Your task to perform on an android device: open app "Viber Messenger" Image 0: 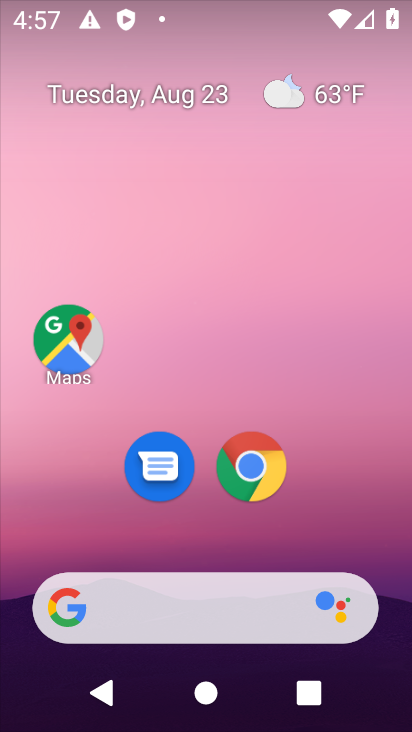
Step 0: drag from (159, 630) to (128, 51)
Your task to perform on an android device: open app "Viber Messenger" Image 1: 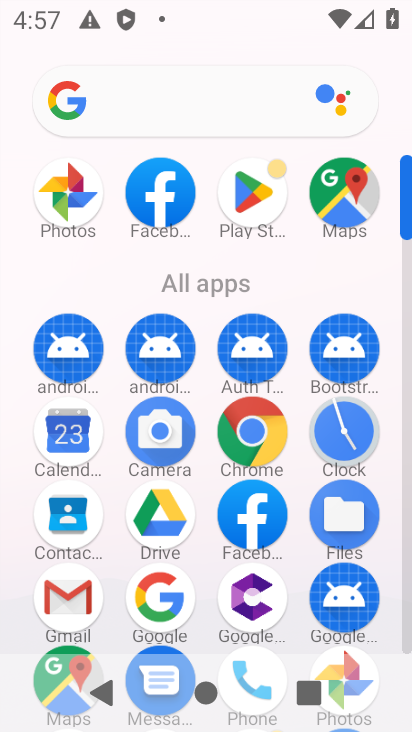
Step 1: click (242, 204)
Your task to perform on an android device: open app "Viber Messenger" Image 2: 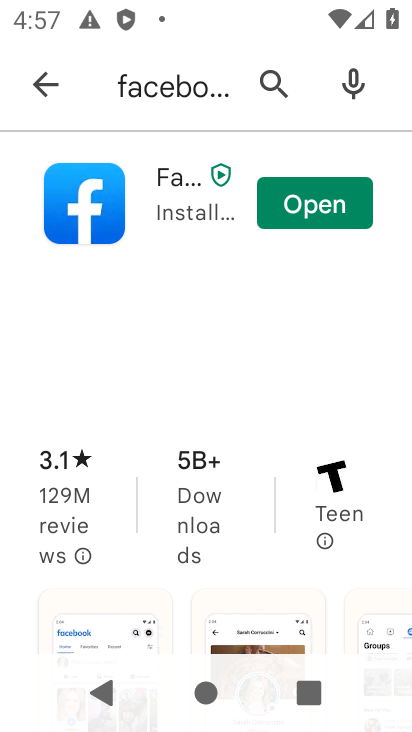
Step 2: click (265, 86)
Your task to perform on an android device: open app "Viber Messenger" Image 3: 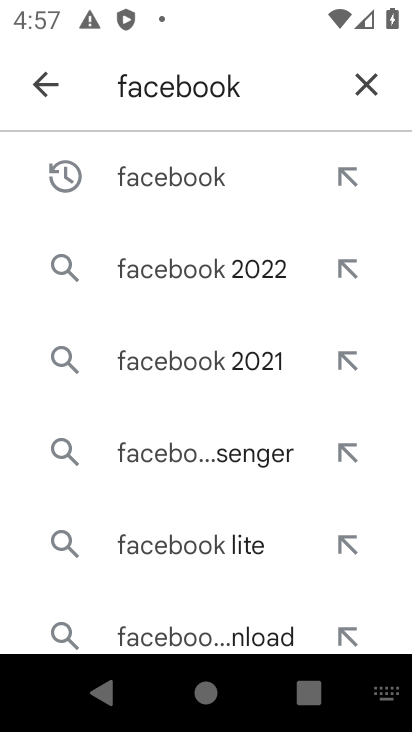
Step 3: click (362, 85)
Your task to perform on an android device: open app "Viber Messenger" Image 4: 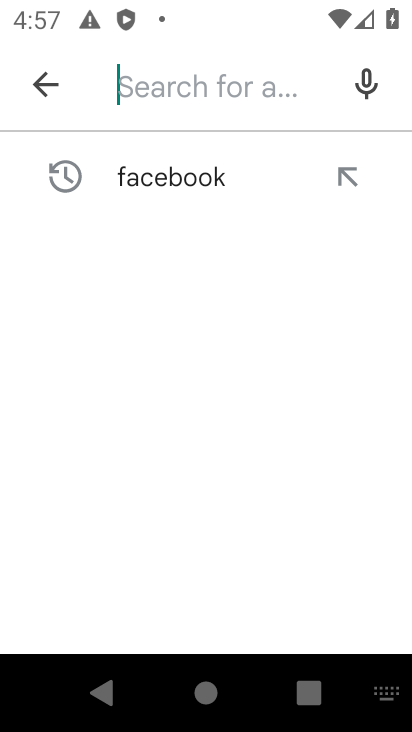
Step 4: type "viber messenger"
Your task to perform on an android device: open app "Viber Messenger" Image 5: 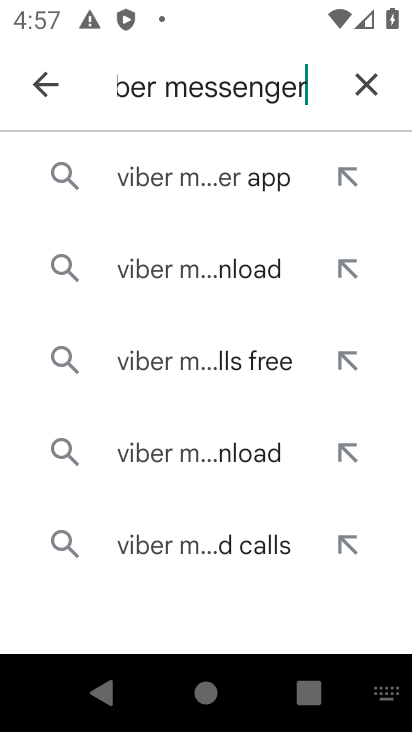
Step 5: click (220, 184)
Your task to perform on an android device: open app "Viber Messenger" Image 6: 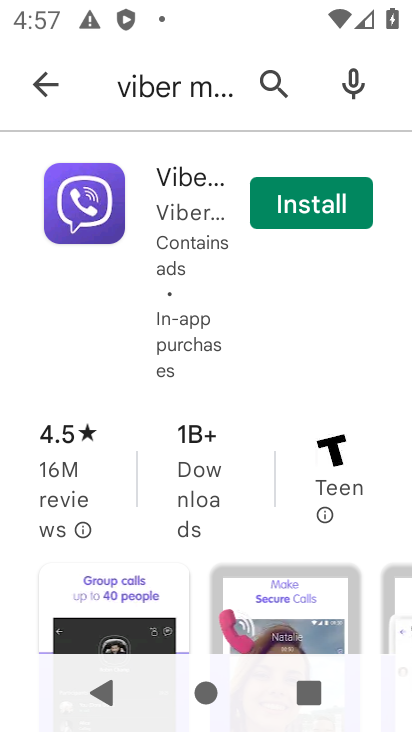
Step 6: task complete